Your task to perform on an android device: Open settings on Google Maps Image 0: 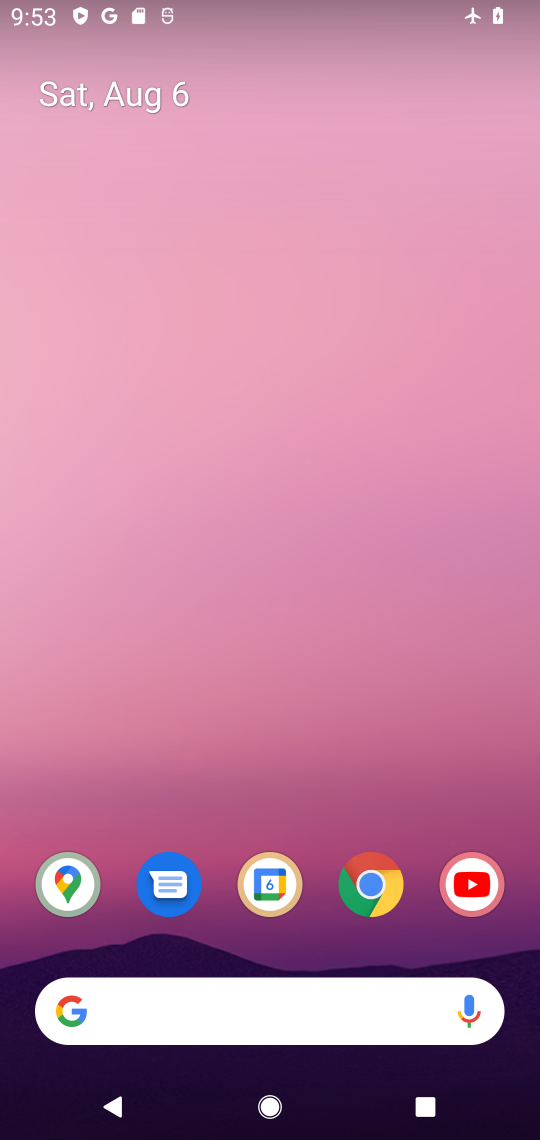
Step 0: click (66, 879)
Your task to perform on an android device: Open settings on Google Maps Image 1: 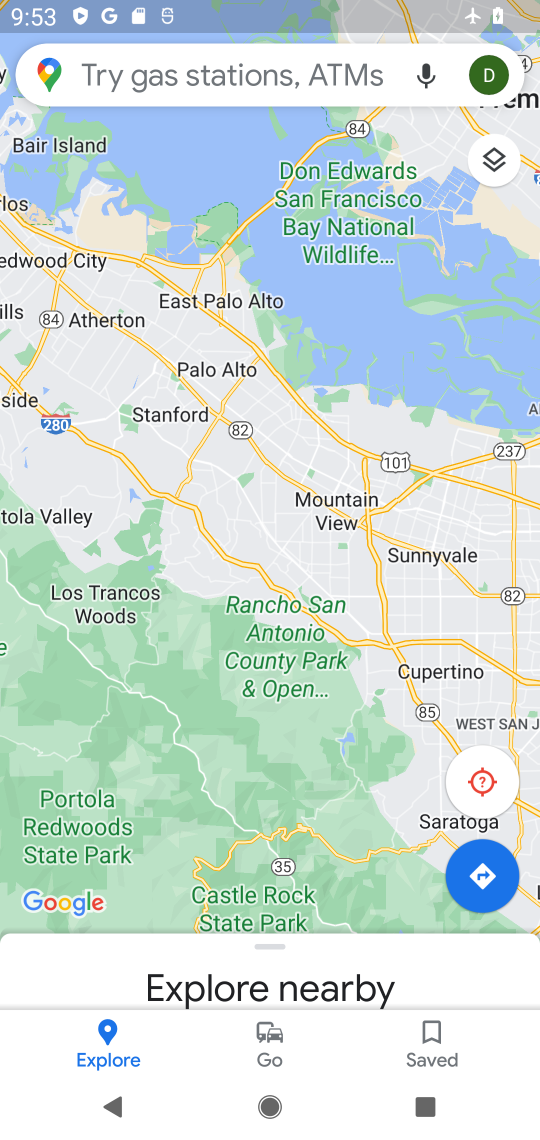
Step 1: click (496, 76)
Your task to perform on an android device: Open settings on Google Maps Image 2: 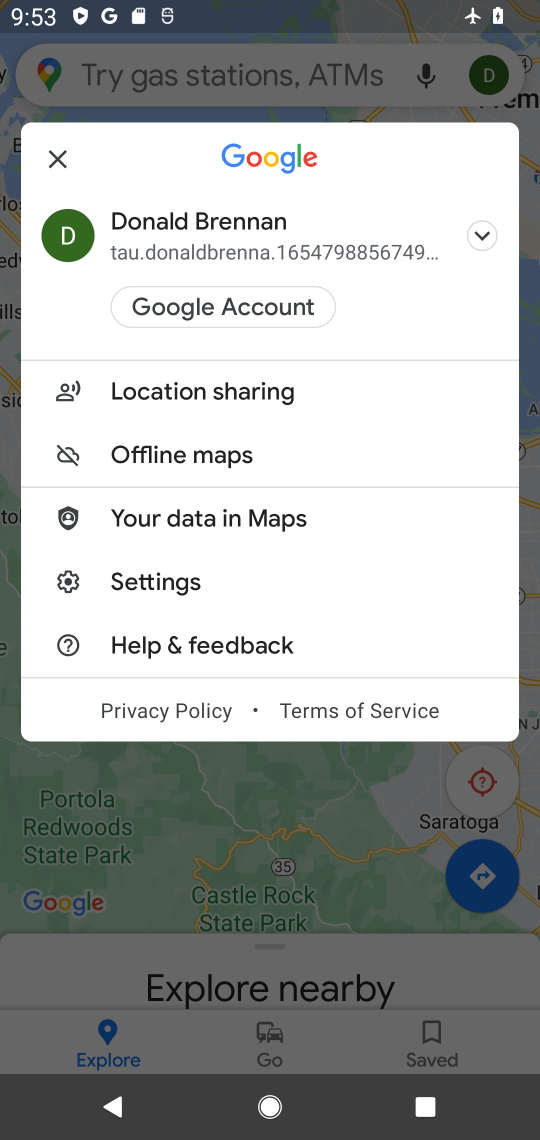
Step 2: click (160, 576)
Your task to perform on an android device: Open settings on Google Maps Image 3: 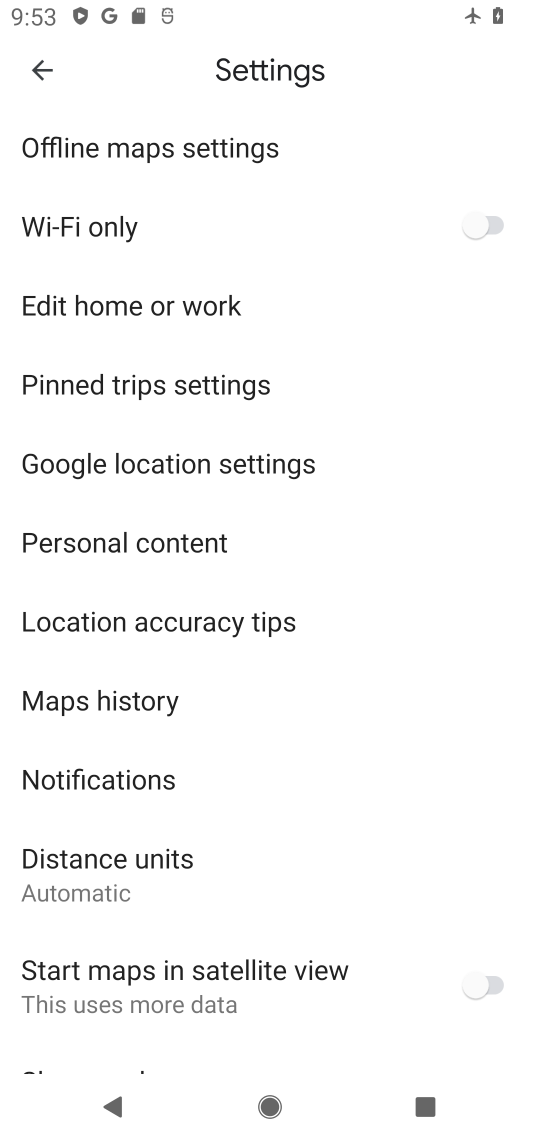
Step 3: task complete